Your task to perform on an android device: set default search engine in the chrome app Image 0: 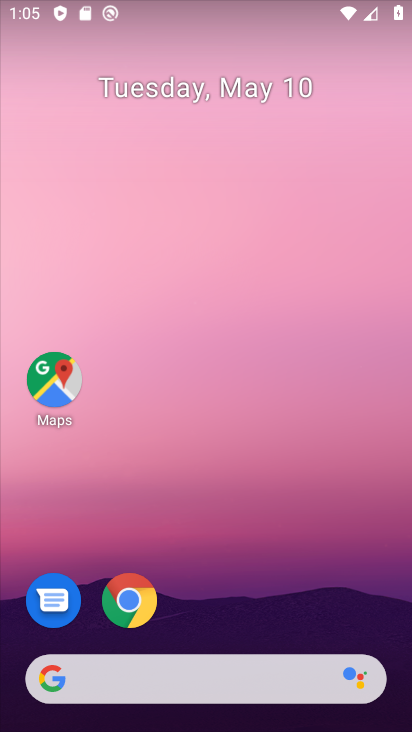
Step 0: drag from (232, 574) to (276, 94)
Your task to perform on an android device: set default search engine in the chrome app Image 1: 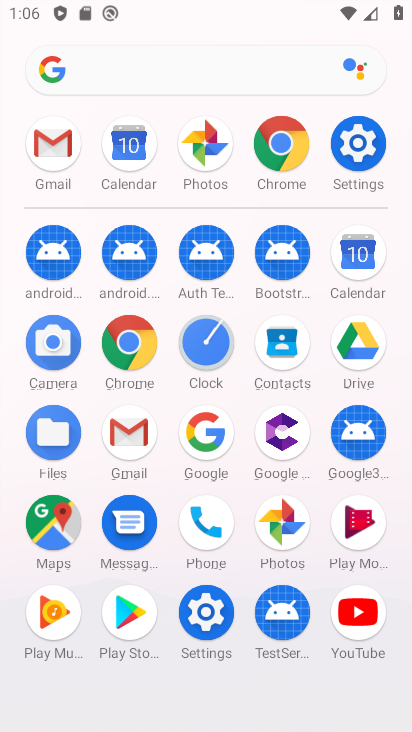
Step 1: click (289, 156)
Your task to perform on an android device: set default search engine in the chrome app Image 2: 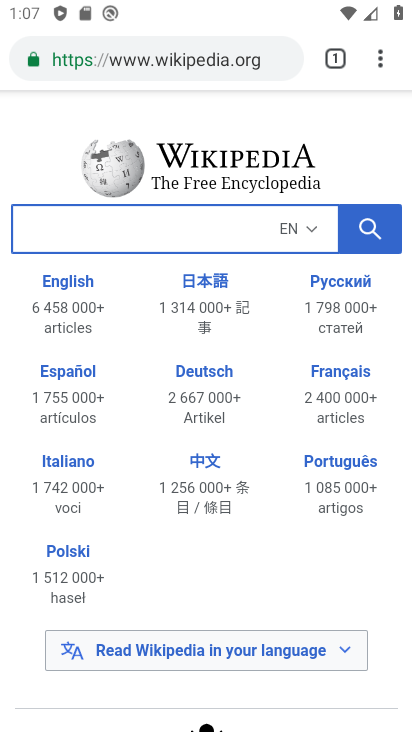
Step 2: click (393, 73)
Your task to perform on an android device: set default search engine in the chrome app Image 3: 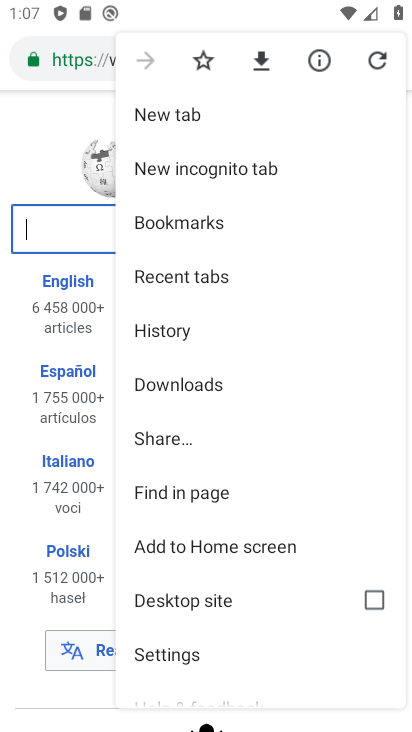
Step 3: drag from (207, 526) to (311, 193)
Your task to perform on an android device: set default search engine in the chrome app Image 4: 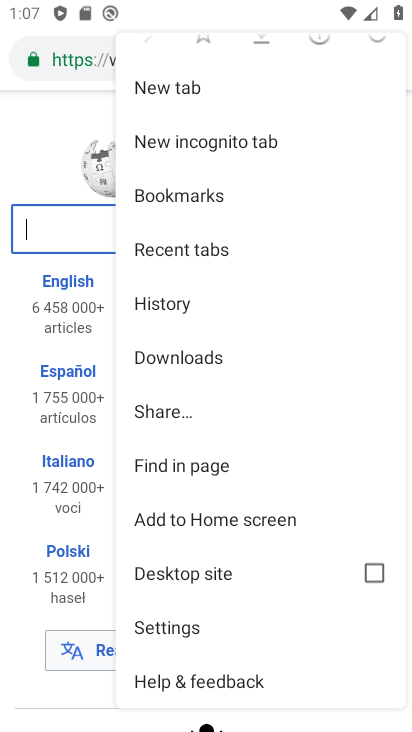
Step 4: click (185, 632)
Your task to perform on an android device: set default search engine in the chrome app Image 5: 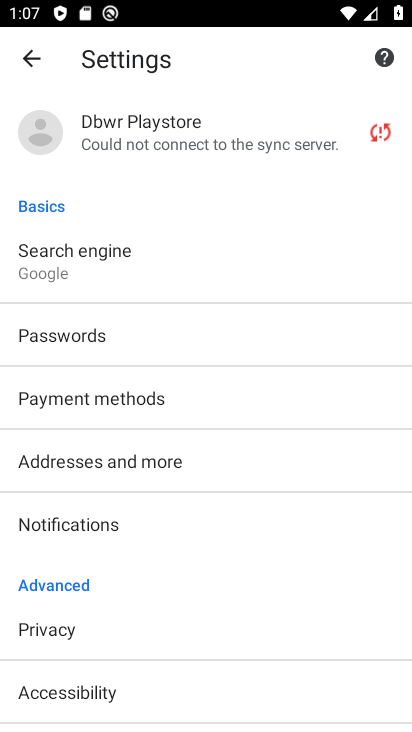
Step 5: drag from (199, 533) to (199, 453)
Your task to perform on an android device: set default search engine in the chrome app Image 6: 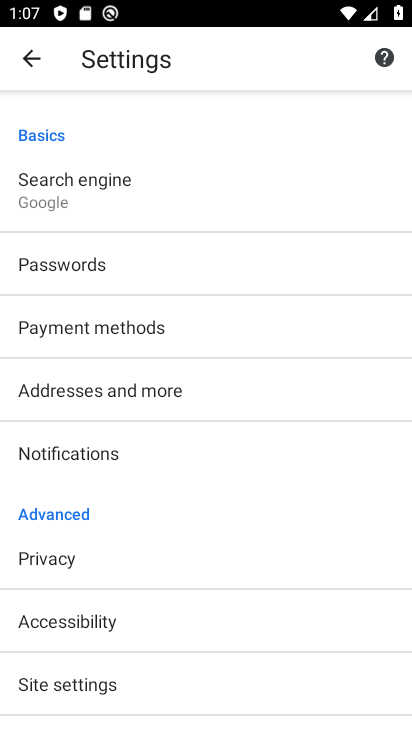
Step 6: drag from (210, 523) to (180, 315)
Your task to perform on an android device: set default search engine in the chrome app Image 7: 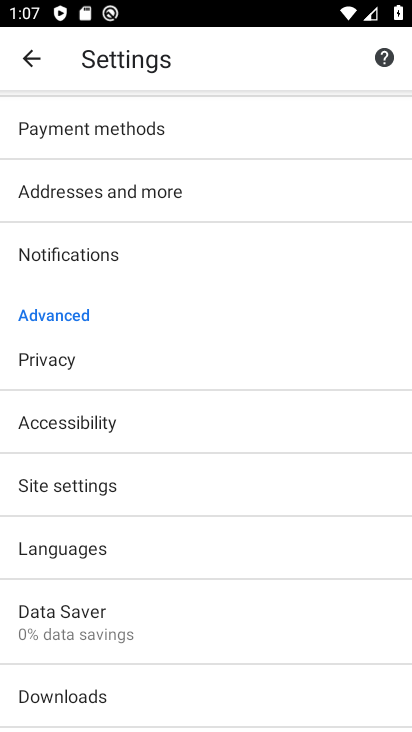
Step 7: drag from (88, 329) to (102, 710)
Your task to perform on an android device: set default search engine in the chrome app Image 8: 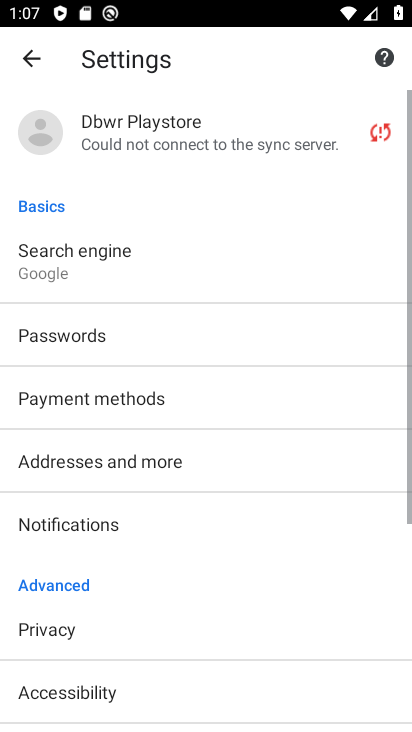
Step 8: click (99, 257)
Your task to perform on an android device: set default search engine in the chrome app Image 9: 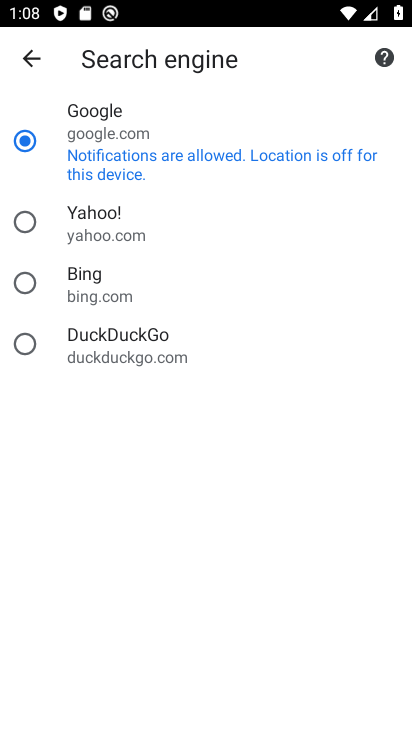
Step 9: task complete